Your task to perform on an android device: toggle translation in the chrome app Image 0: 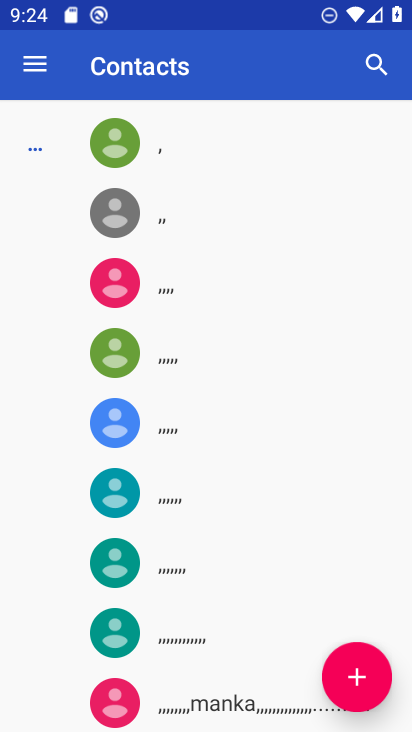
Step 0: press home button
Your task to perform on an android device: toggle translation in the chrome app Image 1: 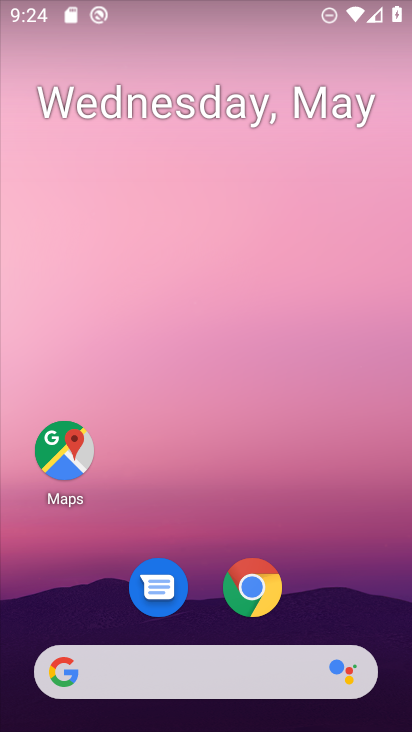
Step 1: click (248, 590)
Your task to perform on an android device: toggle translation in the chrome app Image 2: 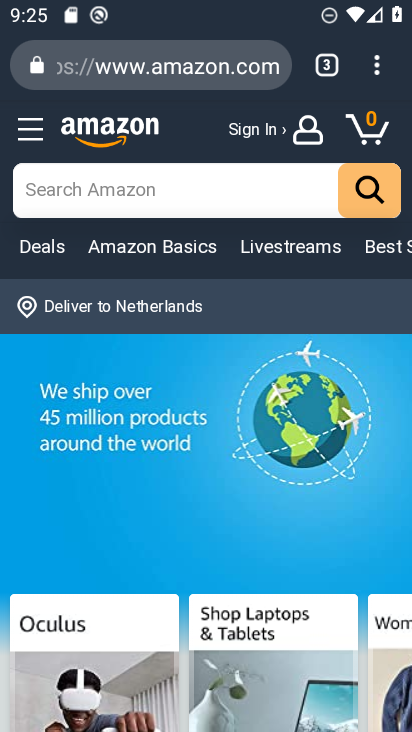
Step 2: click (376, 71)
Your task to perform on an android device: toggle translation in the chrome app Image 3: 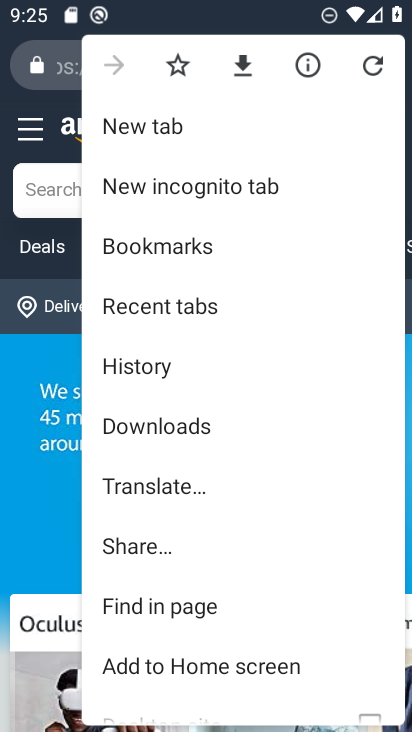
Step 3: drag from (148, 644) to (207, 279)
Your task to perform on an android device: toggle translation in the chrome app Image 4: 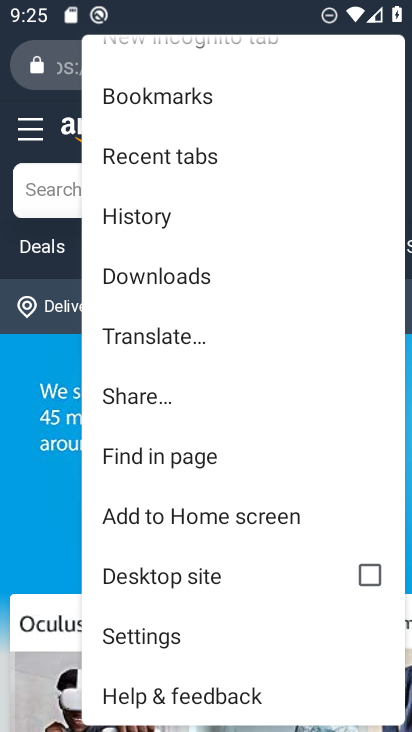
Step 4: click (151, 636)
Your task to perform on an android device: toggle translation in the chrome app Image 5: 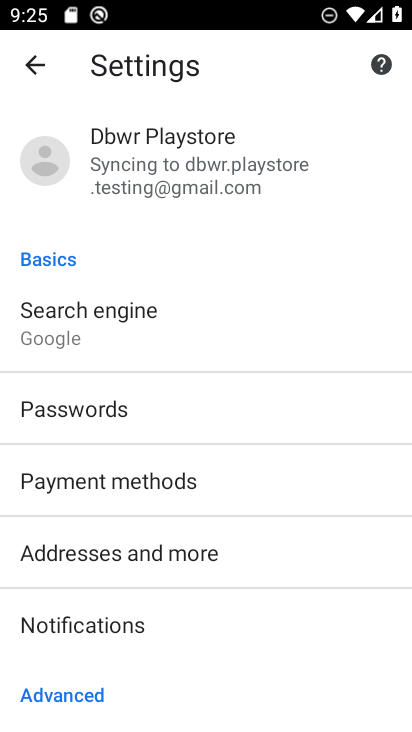
Step 5: drag from (144, 678) to (189, 281)
Your task to perform on an android device: toggle translation in the chrome app Image 6: 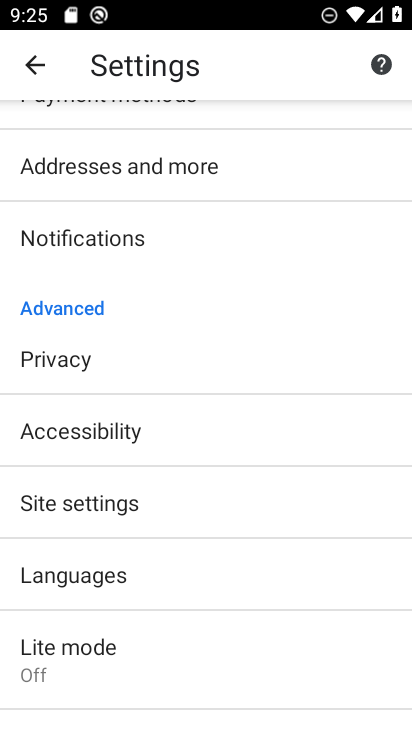
Step 6: click (79, 574)
Your task to perform on an android device: toggle translation in the chrome app Image 7: 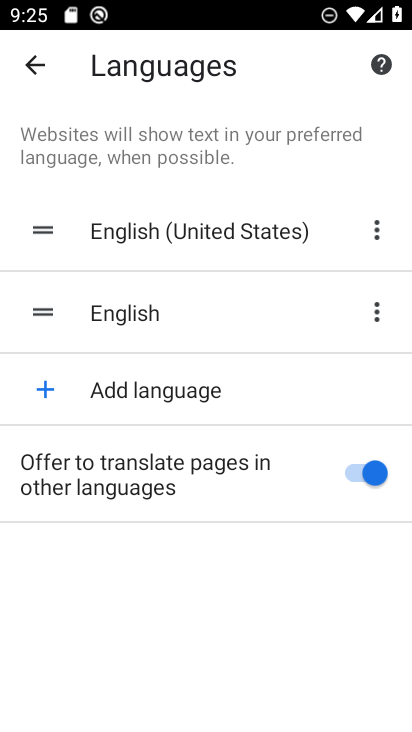
Step 7: click (348, 473)
Your task to perform on an android device: toggle translation in the chrome app Image 8: 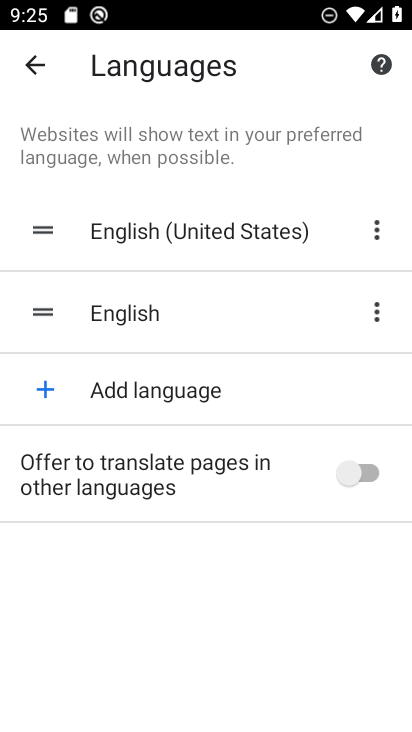
Step 8: task complete